Your task to perform on an android device: Open settings on Google Maps Image 0: 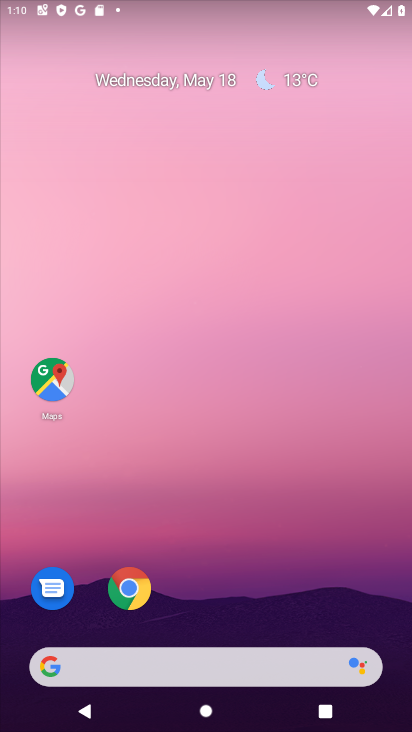
Step 0: drag from (173, 628) to (187, 89)
Your task to perform on an android device: Open settings on Google Maps Image 1: 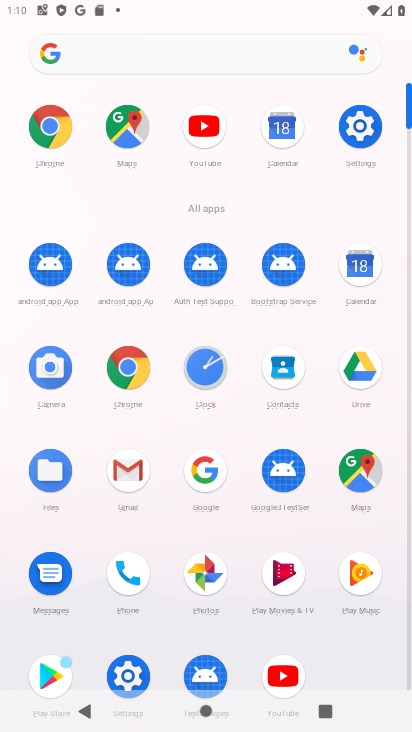
Step 1: click (358, 479)
Your task to perform on an android device: Open settings on Google Maps Image 2: 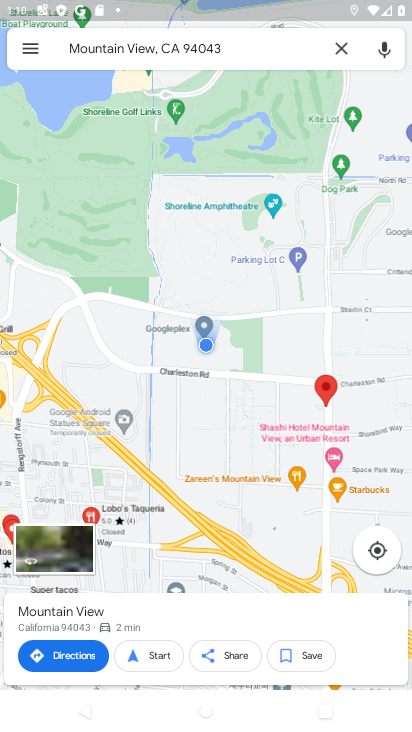
Step 2: click (28, 52)
Your task to perform on an android device: Open settings on Google Maps Image 3: 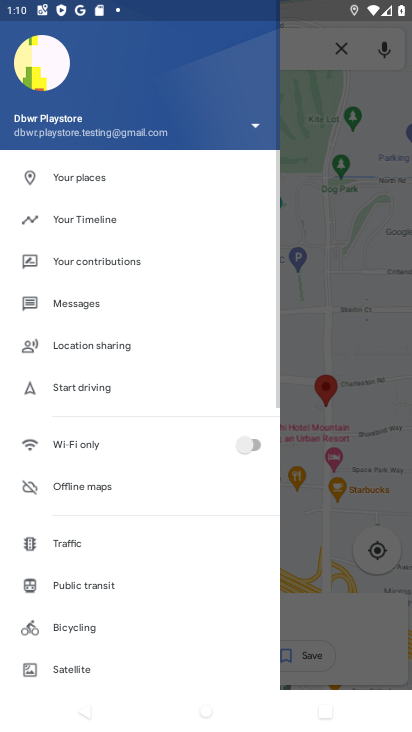
Step 3: drag from (90, 637) to (177, 157)
Your task to perform on an android device: Open settings on Google Maps Image 4: 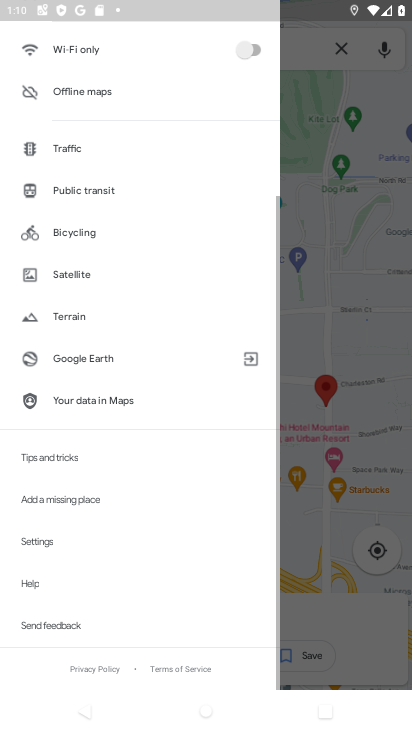
Step 4: click (81, 546)
Your task to perform on an android device: Open settings on Google Maps Image 5: 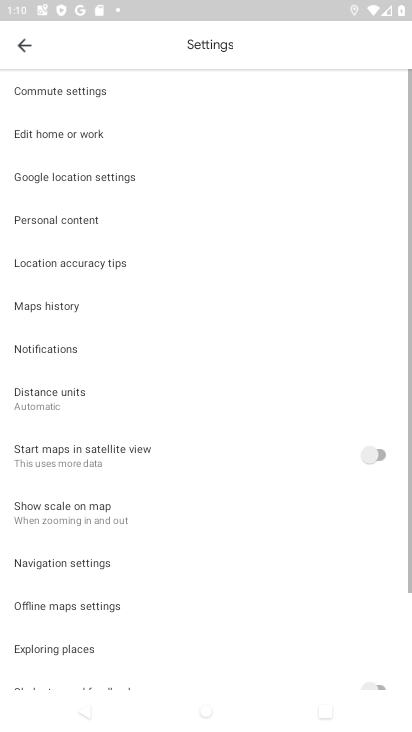
Step 5: task complete